Your task to perform on an android device: Go to Maps Image 0: 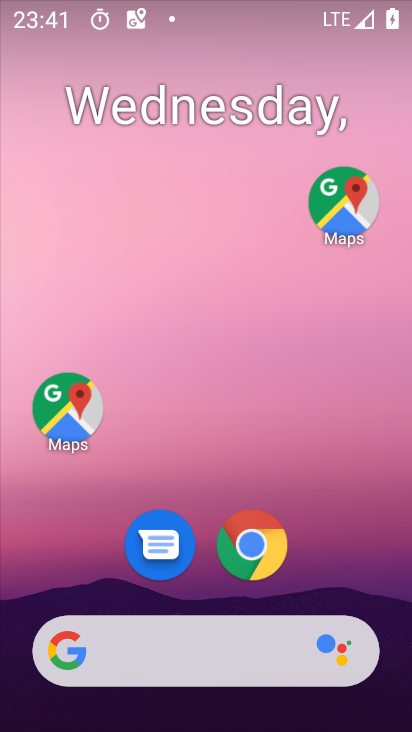
Step 0: drag from (335, 599) to (240, 60)
Your task to perform on an android device: Go to Maps Image 1: 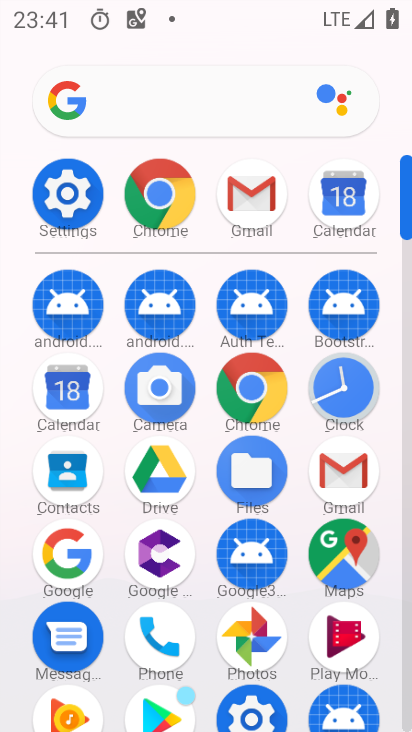
Step 1: click (344, 554)
Your task to perform on an android device: Go to Maps Image 2: 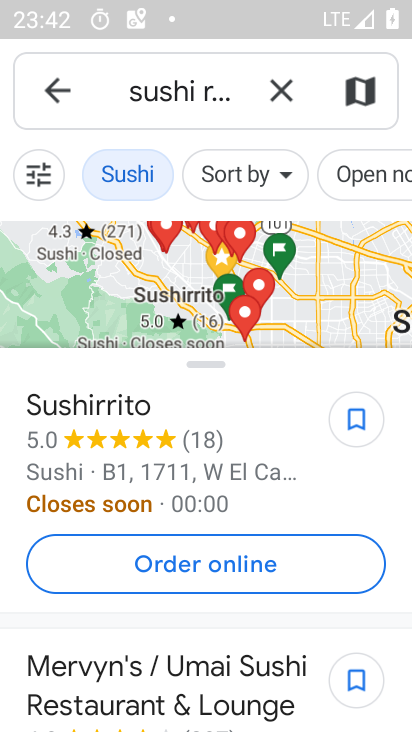
Step 2: click (54, 94)
Your task to perform on an android device: Go to Maps Image 3: 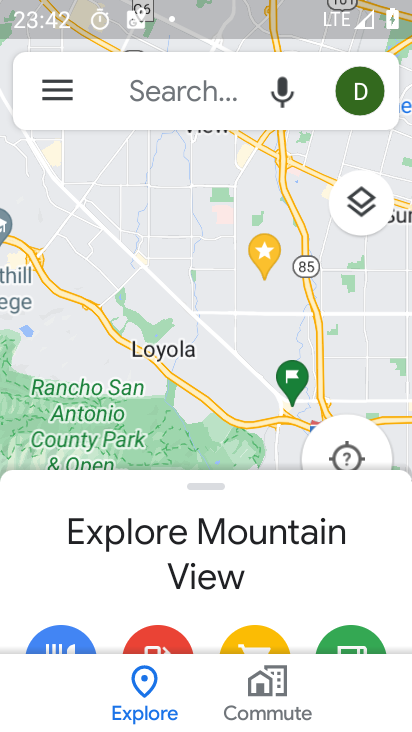
Step 3: task complete